Your task to perform on an android device: turn on the 24-hour format for clock Image 0: 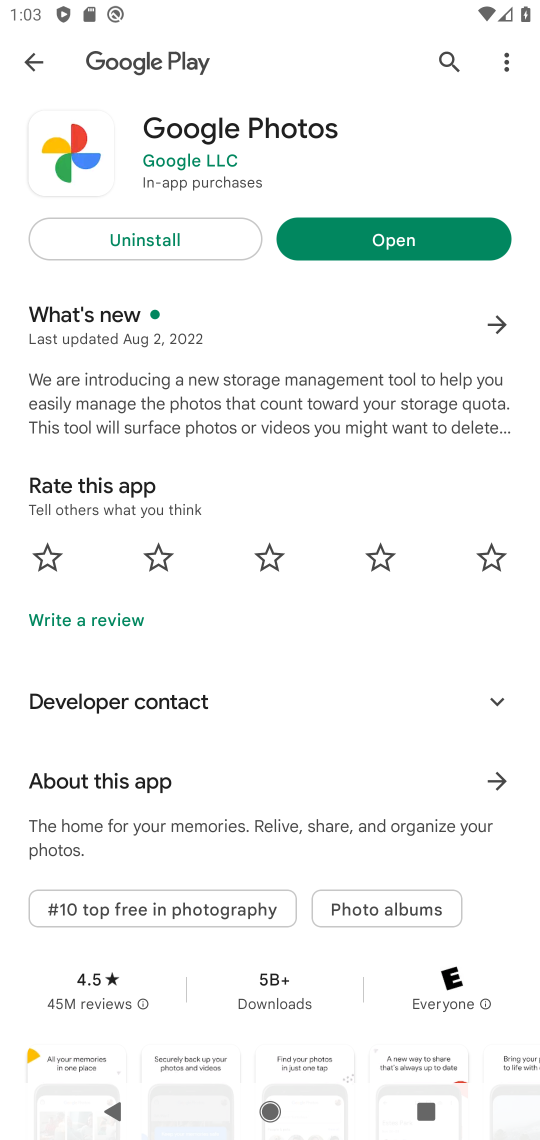
Step 0: press home button
Your task to perform on an android device: turn on the 24-hour format for clock Image 1: 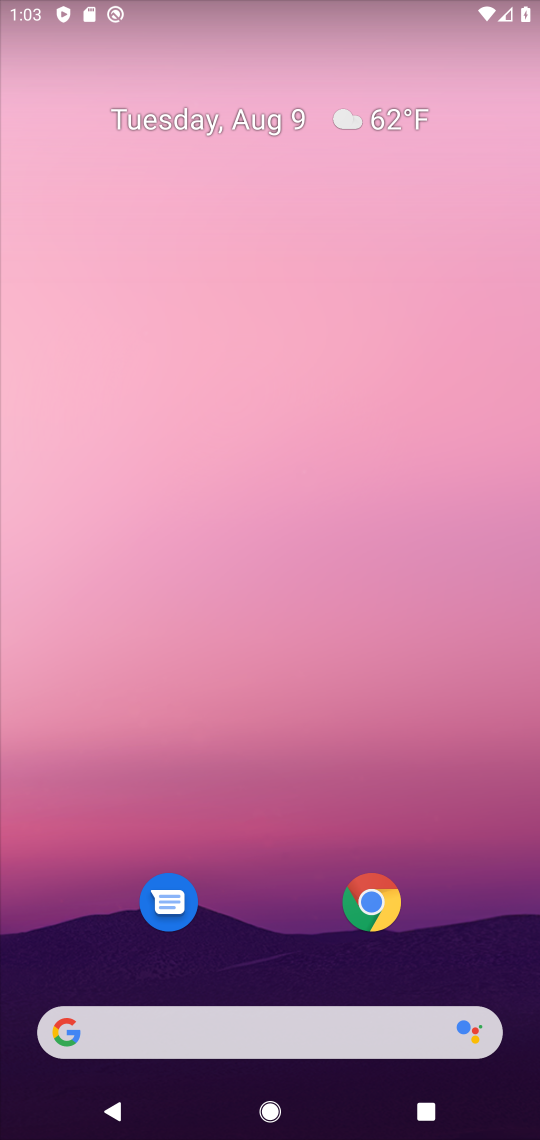
Step 1: drag from (204, 1027) to (180, 569)
Your task to perform on an android device: turn on the 24-hour format for clock Image 2: 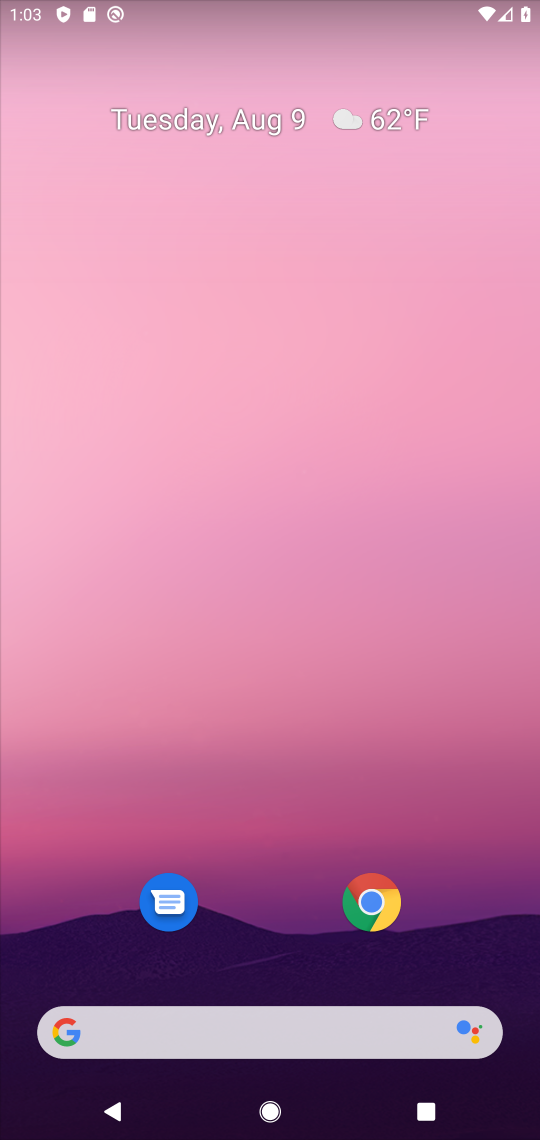
Step 2: drag from (319, 913) to (254, 405)
Your task to perform on an android device: turn on the 24-hour format for clock Image 3: 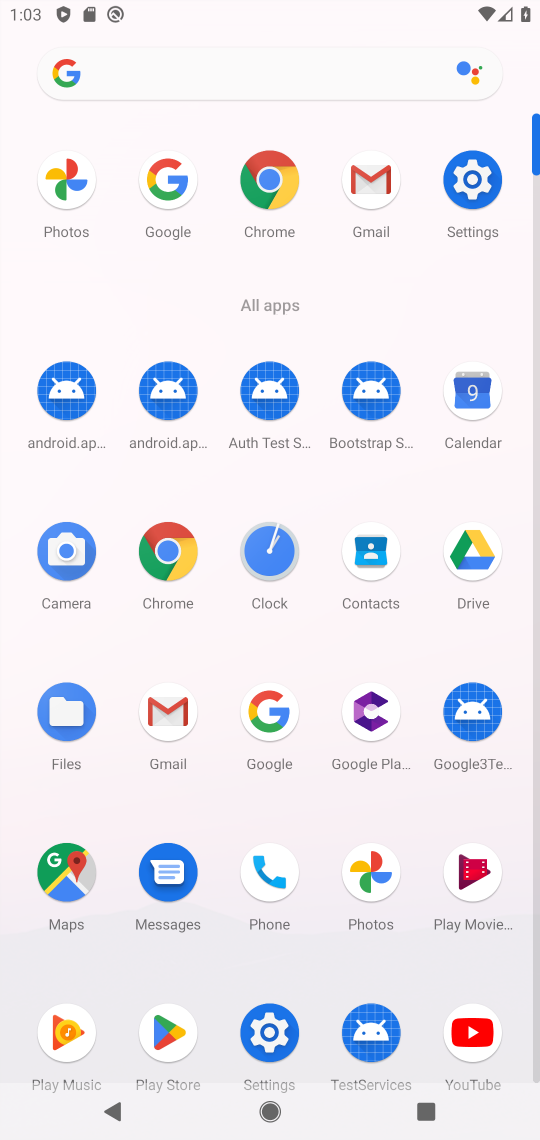
Step 3: click (274, 547)
Your task to perform on an android device: turn on the 24-hour format for clock Image 4: 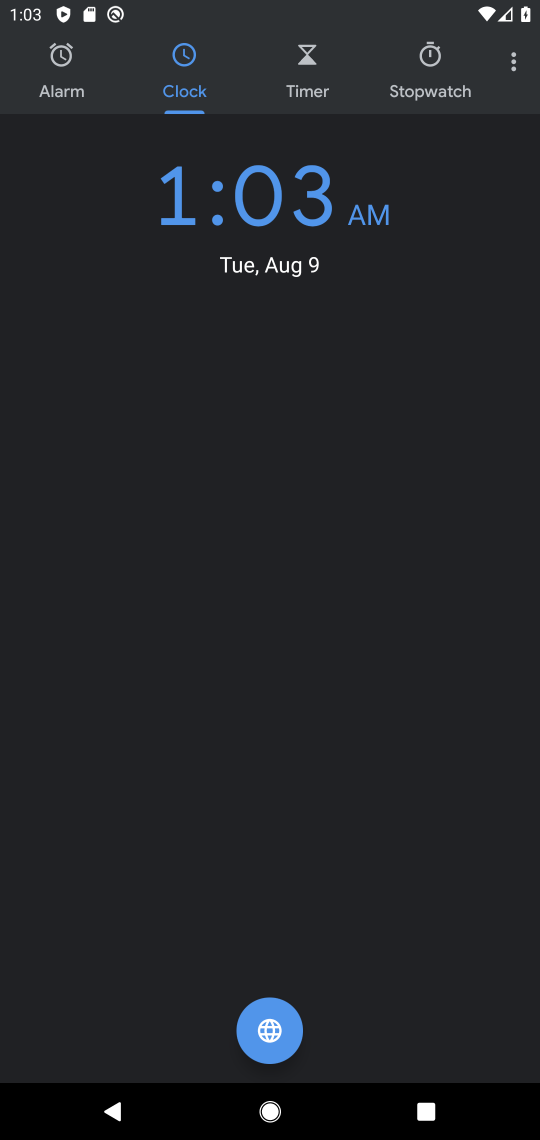
Step 4: click (515, 64)
Your task to perform on an android device: turn on the 24-hour format for clock Image 5: 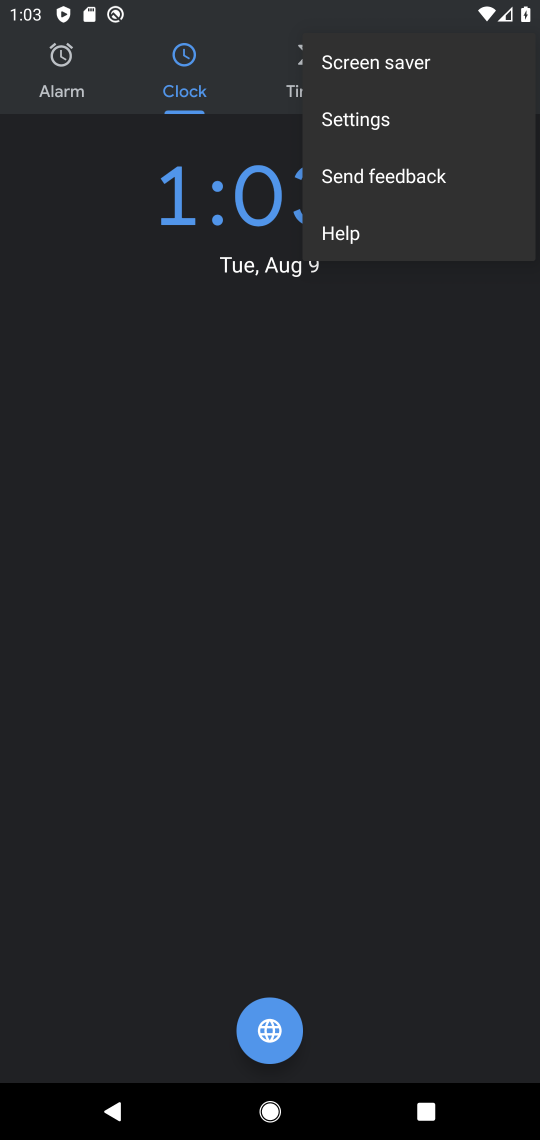
Step 5: click (362, 112)
Your task to perform on an android device: turn on the 24-hour format for clock Image 6: 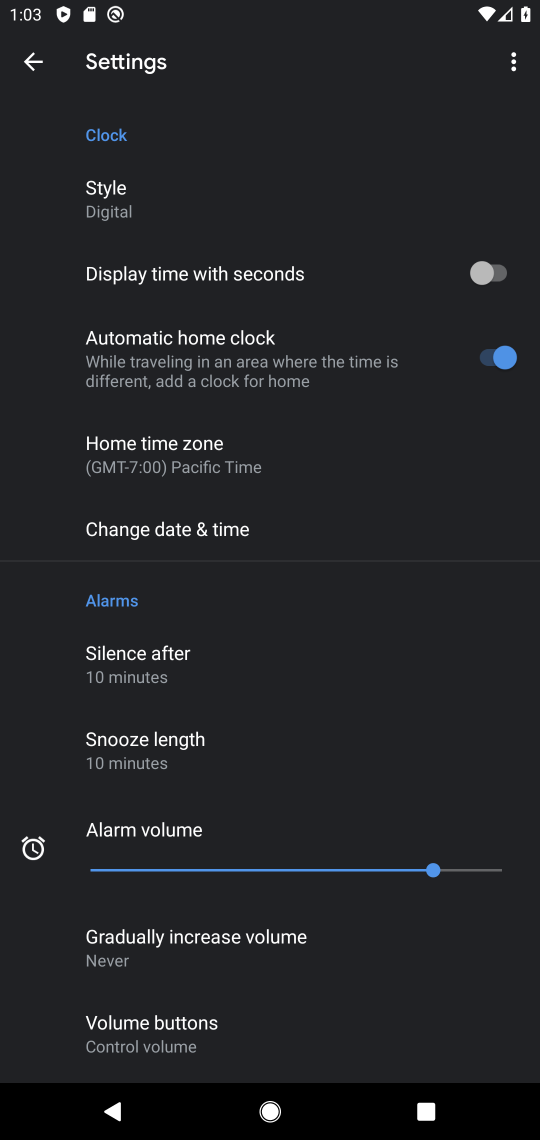
Step 6: click (131, 536)
Your task to perform on an android device: turn on the 24-hour format for clock Image 7: 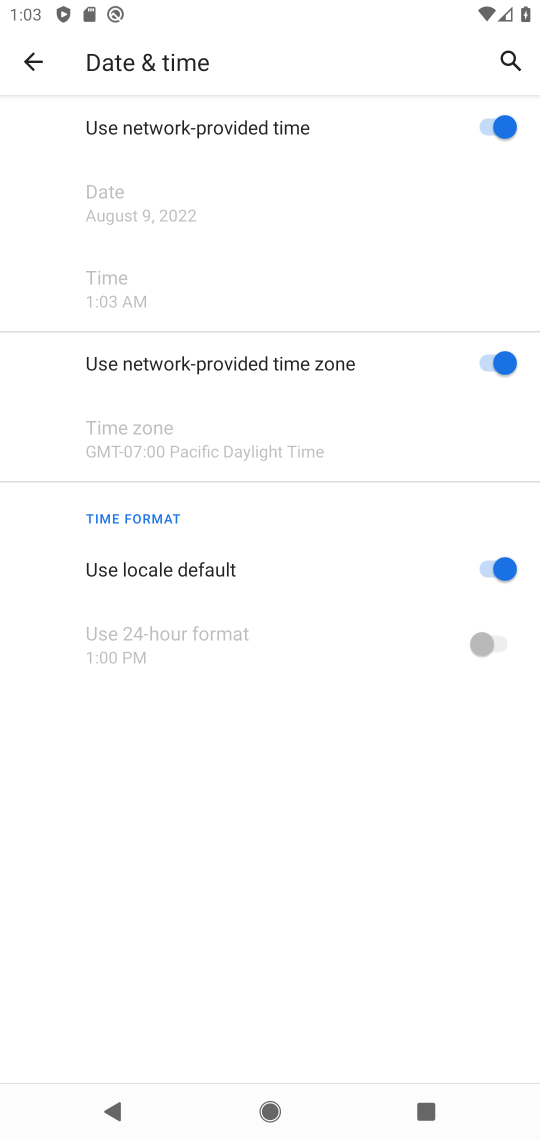
Step 7: click (489, 562)
Your task to perform on an android device: turn on the 24-hour format for clock Image 8: 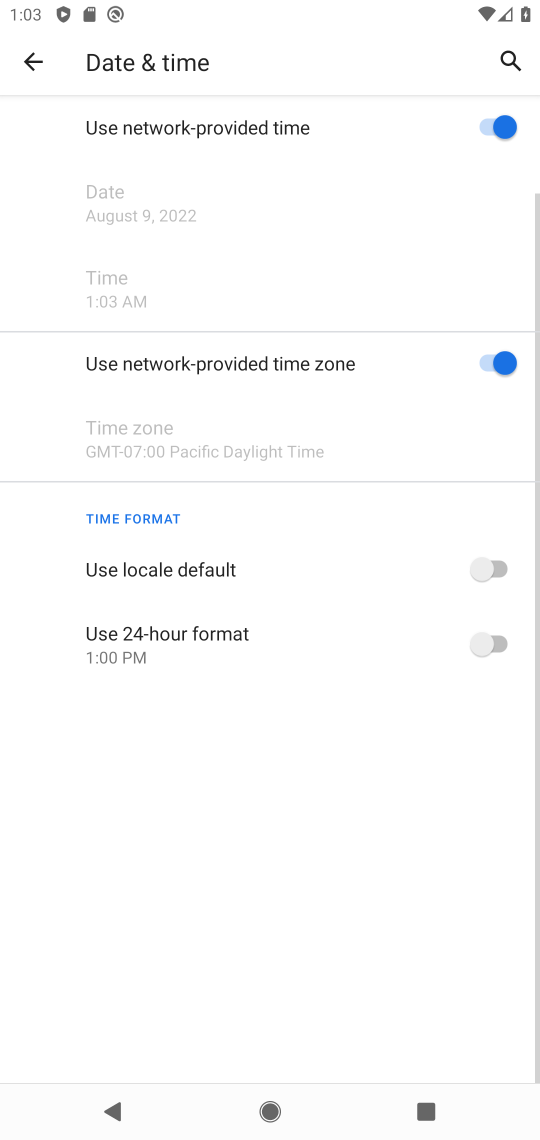
Step 8: click (503, 639)
Your task to perform on an android device: turn on the 24-hour format for clock Image 9: 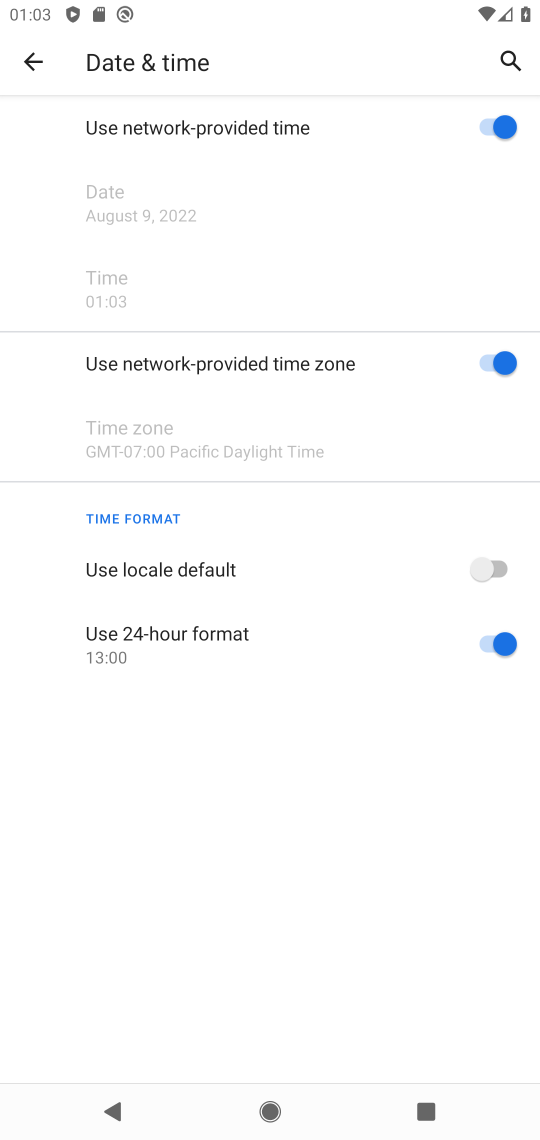
Step 9: task complete